Your task to perform on an android device: delete browsing data in the chrome app Image 0: 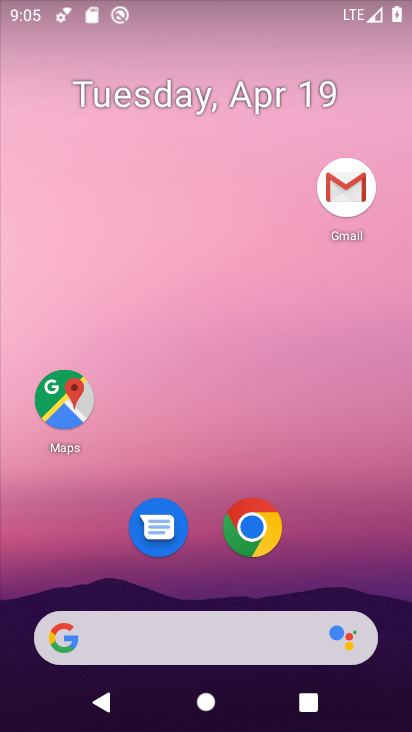
Step 0: drag from (377, 535) to (340, 116)
Your task to perform on an android device: delete browsing data in the chrome app Image 1: 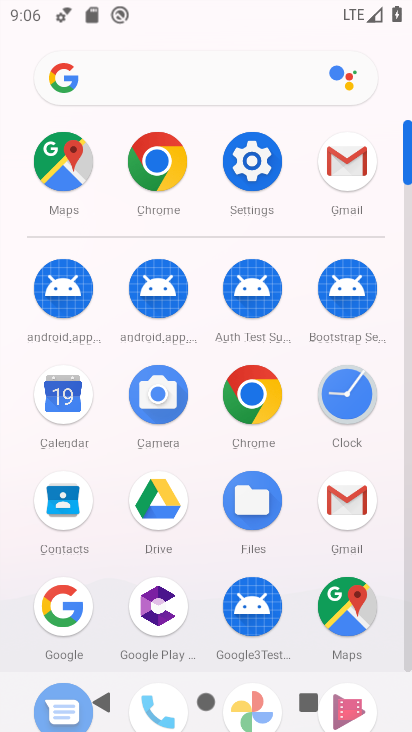
Step 1: drag from (303, 533) to (294, 204)
Your task to perform on an android device: delete browsing data in the chrome app Image 2: 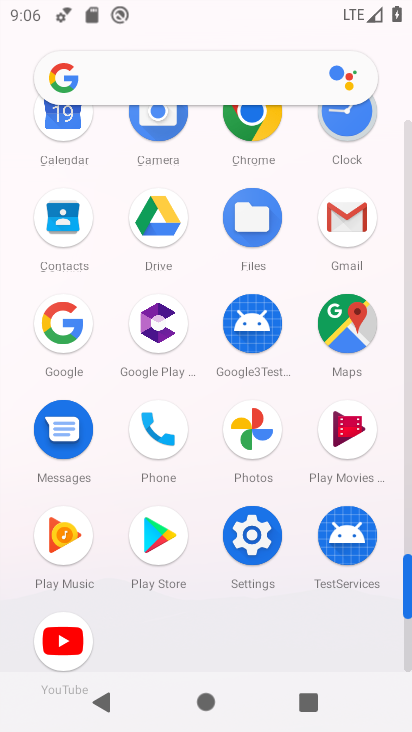
Step 2: click (270, 131)
Your task to perform on an android device: delete browsing data in the chrome app Image 3: 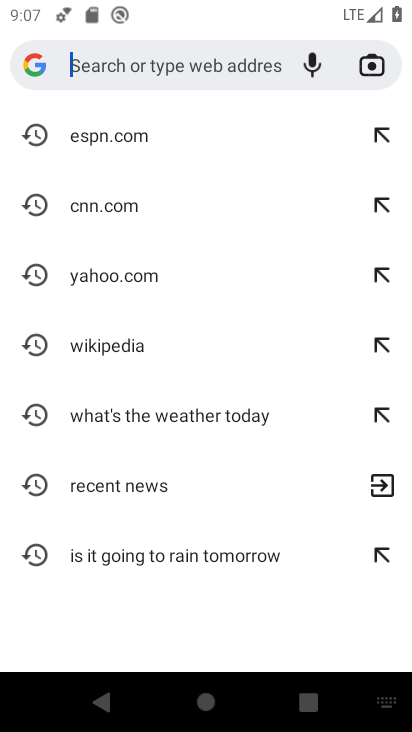
Step 3: click (91, 716)
Your task to perform on an android device: delete browsing data in the chrome app Image 4: 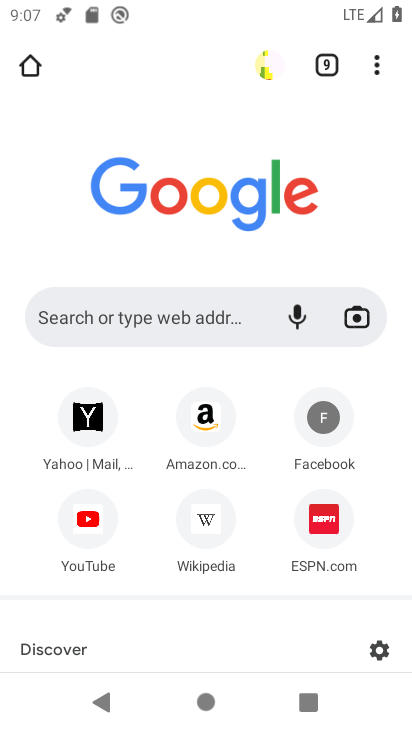
Step 4: click (379, 84)
Your task to perform on an android device: delete browsing data in the chrome app Image 5: 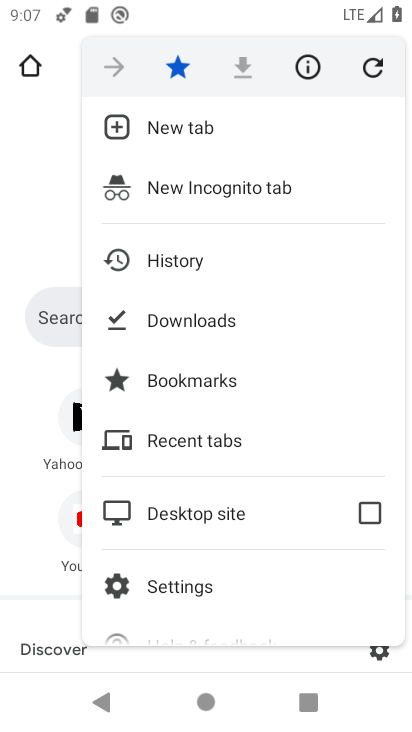
Step 5: click (222, 262)
Your task to perform on an android device: delete browsing data in the chrome app Image 6: 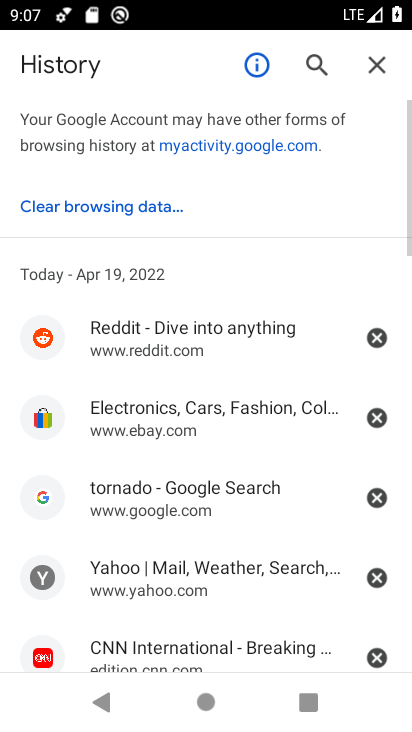
Step 6: click (115, 204)
Your task to perform on an android device: delete browsing data in the chrome app Image 7: 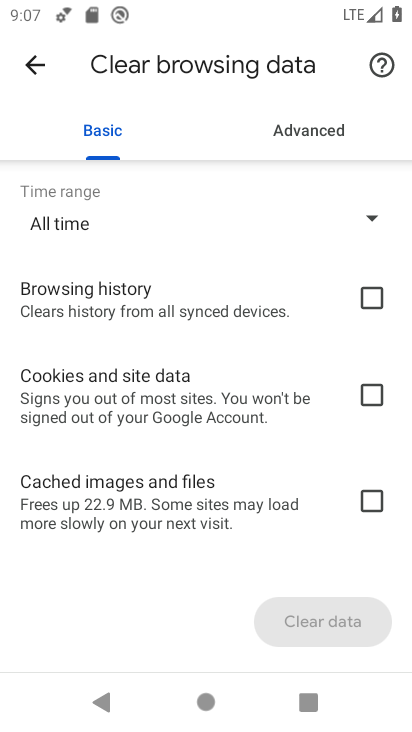
Step 7: click (370, 305)
Your task to perform on an android device: delete browsing data in the chrome app Image 8: 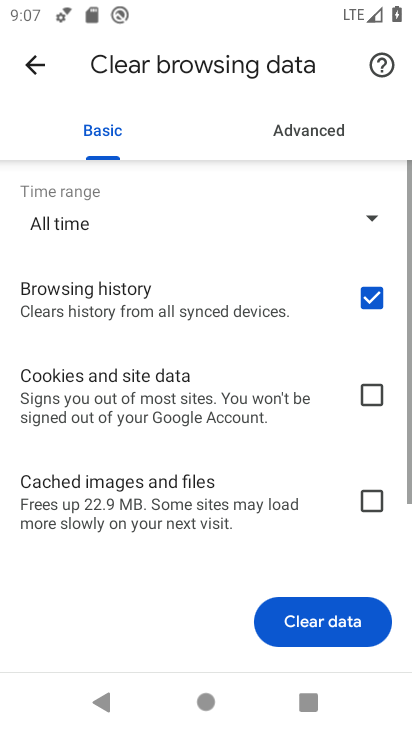
Step 8: click (331, 630)
Your task to perform on an android device: delete browsing data in the chrome app Image 9: 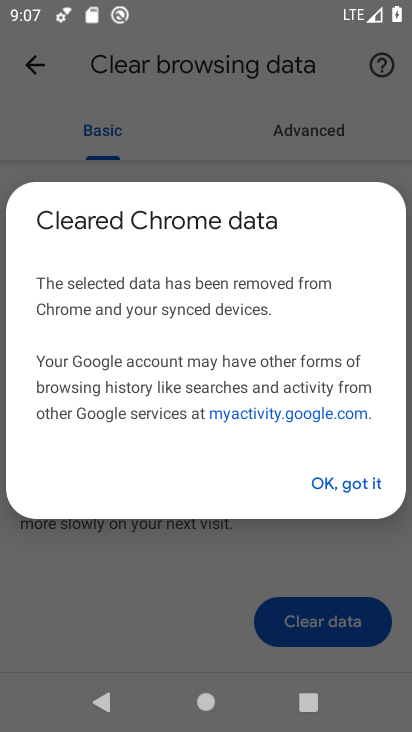
Step 9: click (338, 477)
Your task to perform on an android device: delete browsing data in the chrome app Image 10: 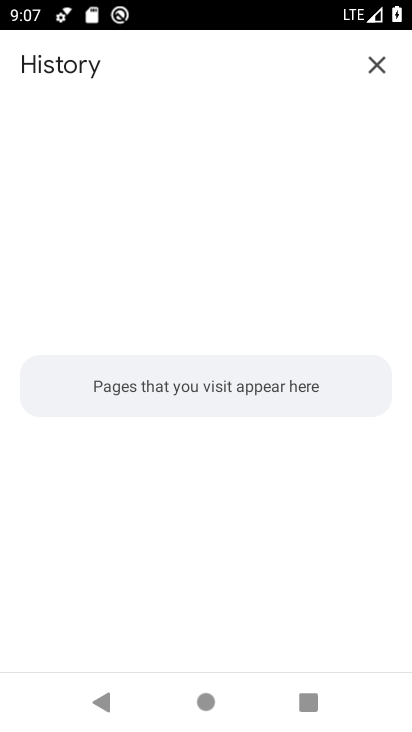
Step 10: task complete